Your task to perform on an android device: turn on the 12-hour format for clock Image 0: 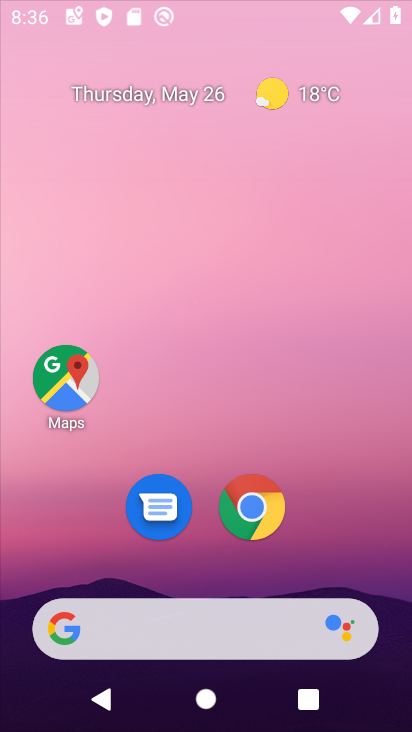
Step 0: drag from (317, 643) to (390, 163)
Your task to perform on an android device: turn on the 12-hour format for clock Image 1: 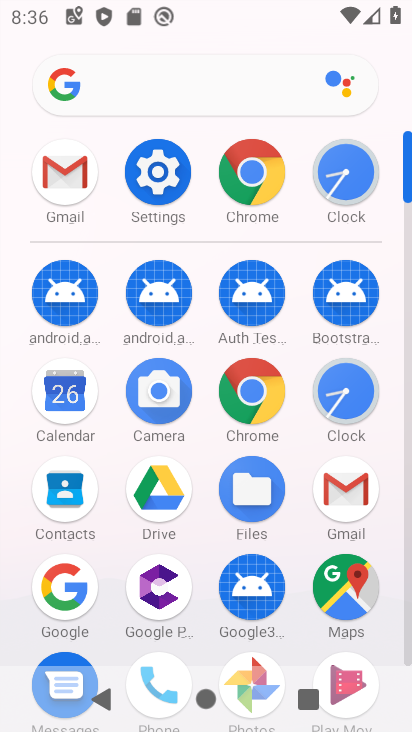
Step 1: click (335, 396)
Your task to perform on an android device: turn on the 12-hour format for clock Image 2: 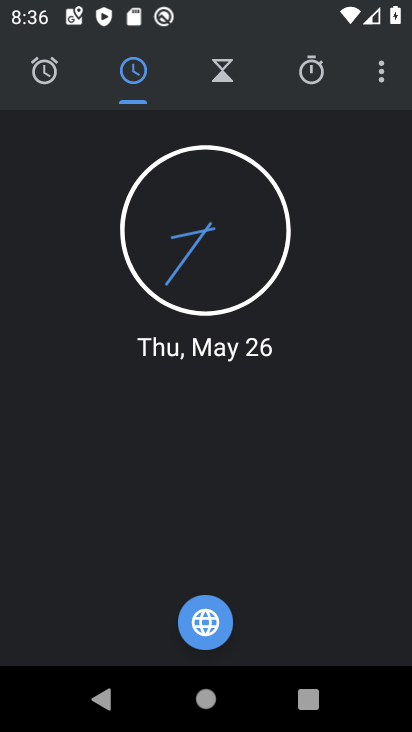
Step 2: click (368, 89)
Your task to perform on an android device: turn on the 12-hour format for clock Image 3: 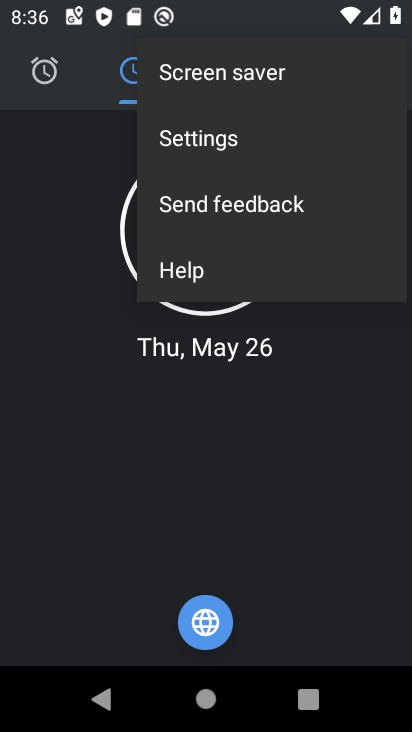
Step 3: click (219, 164)
Your task to perform on an android device: turn on the 12-hour format for clock Image 4: 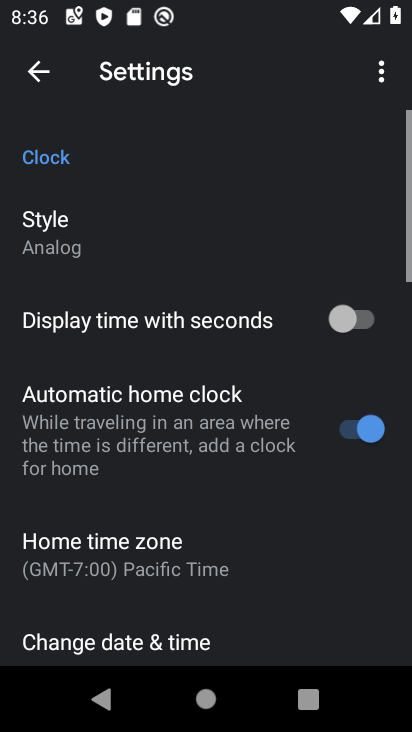
Step 4: drag from (190, 566) to (209, 444)
Your task to perform on an android device: turn on the 12-hour format for clock Image 5: 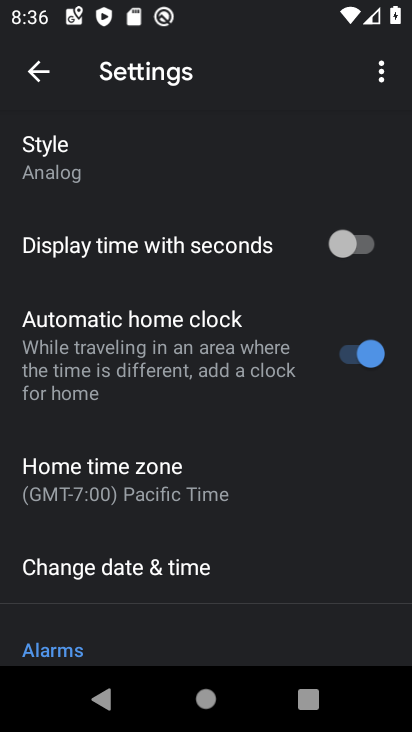
Step 5: click (159, 559)
Your task to perform on an android device: turn on the 12-hour format for clock Image 6: 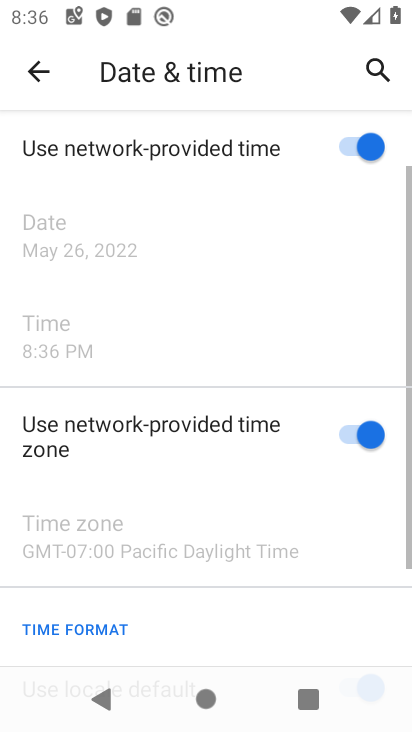
Step 6: drag from (257, 538) to (294, 268)
Your task to perform on an android device: turn on the 12-hour format for clock Image 7: 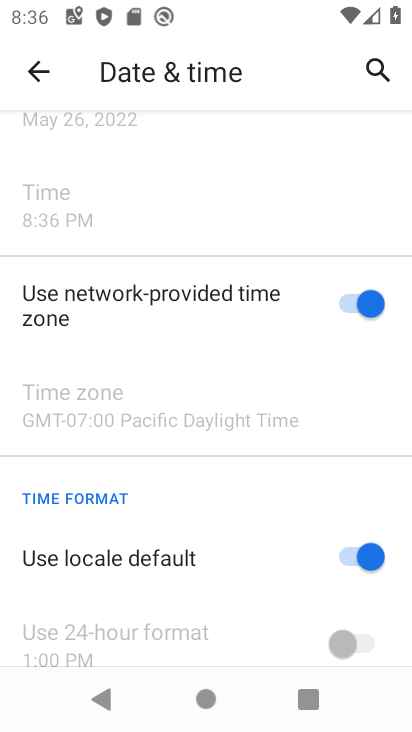
Step 7: drag from (252, 600) to (269, 493)
Your task to perform on an android device: turn on the 12-hour format for clock Image 8: 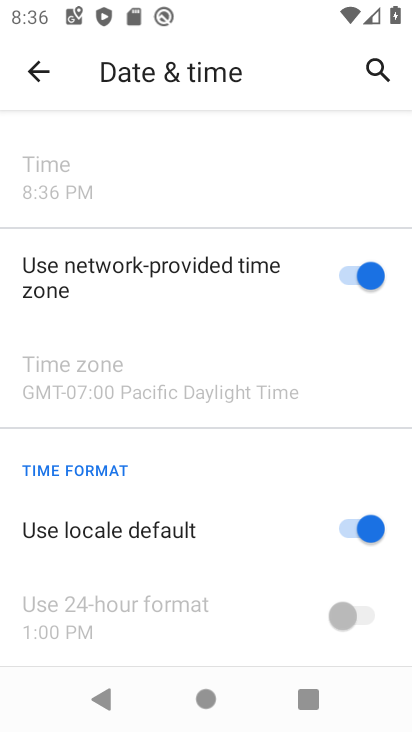
Step 8: click (344, 524)
Your task to perform on an android device: turn on the 12-hour format for clock Image 9: 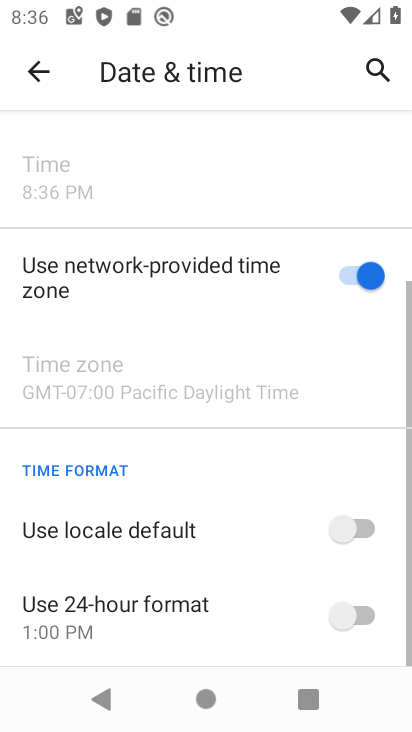
Step 9: click (352, 618)
Your task to perform on an android device: turn on the 12-hour format for clock Image 10: 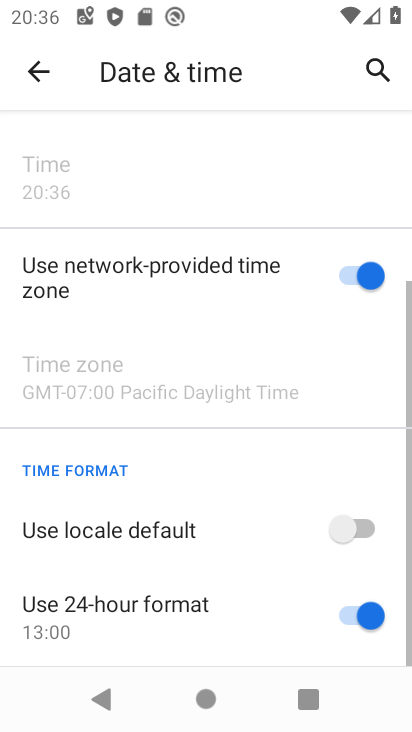
Step 10: click (345, 613)
Your task to perform on an android device: turn on the 12-hour format for clock Image 11: 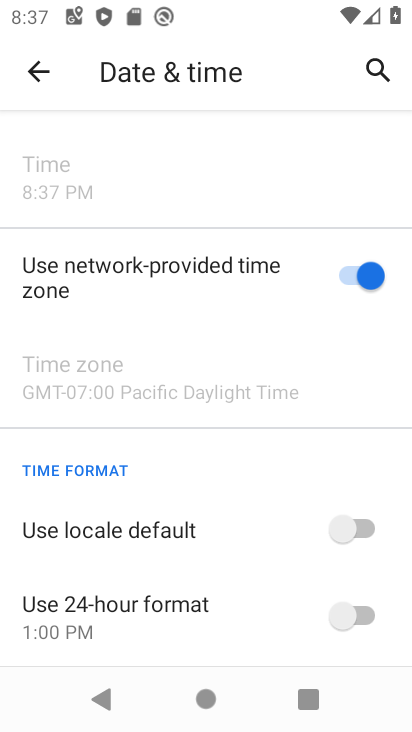
Step 11: task complete